Your task to perform on an android device: allow notifications from all sites in the chrome app Image 0: 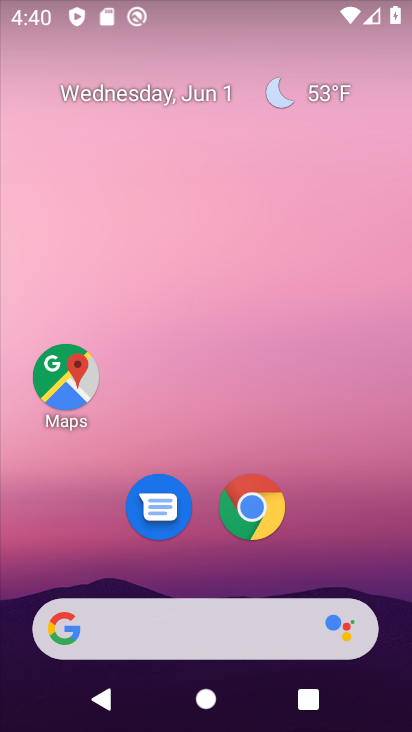
Step 0: click (346, 77)
Your task to perform on an android device: allow notifications from all sites in the chrome app Image 1: 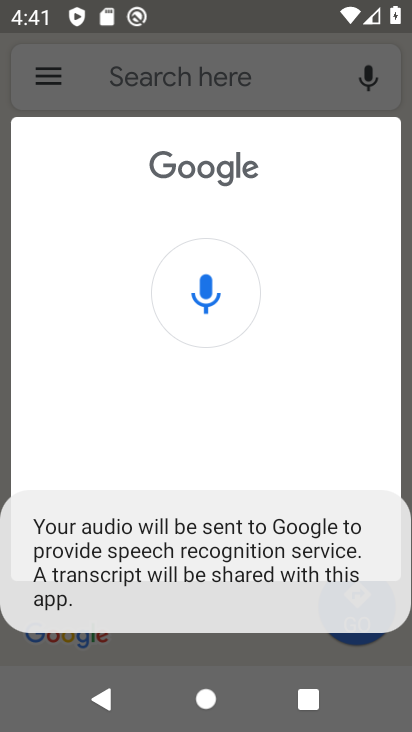
Step 1: press home button
Your task to perform on an android device: allow notifications from all sites in the chrome app Image 2: 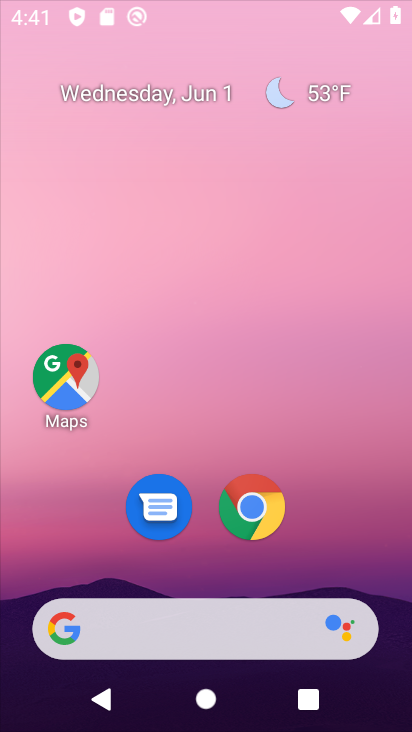
Step 2: press home button
Your task to perform on an android device: allow notifications from all sites in the chrome app Image 3: 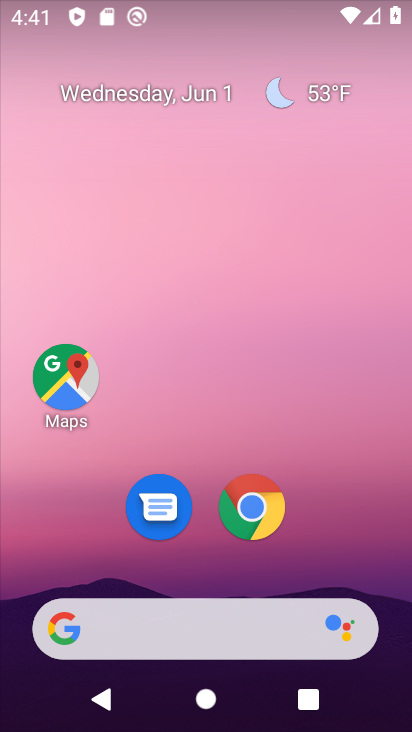
Step 3: drag from (306, 335) to (262, 18)
Your task to perform on an android device: allow notifications from all sites in the chrome app Image 4: 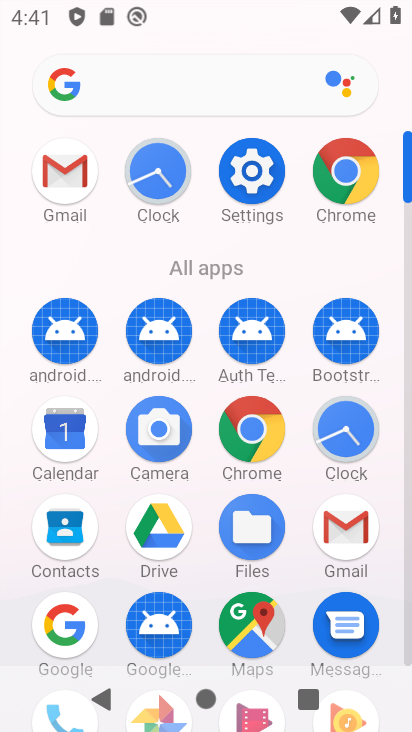
Step 4: click (360, 173)
Your task to perform on an android device: allow notifications from all sites in the chrome app Image 5: 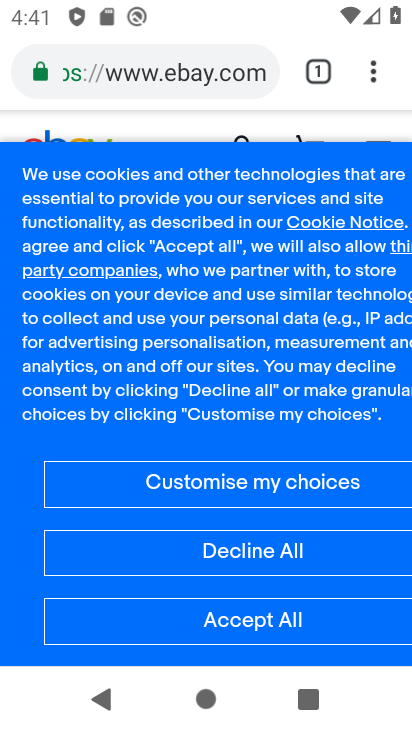
Step 5: drag from (378, 83) to (189, 501)
Your task to perform on an android device: allow notifications from all sites in the chrome app Image 6: 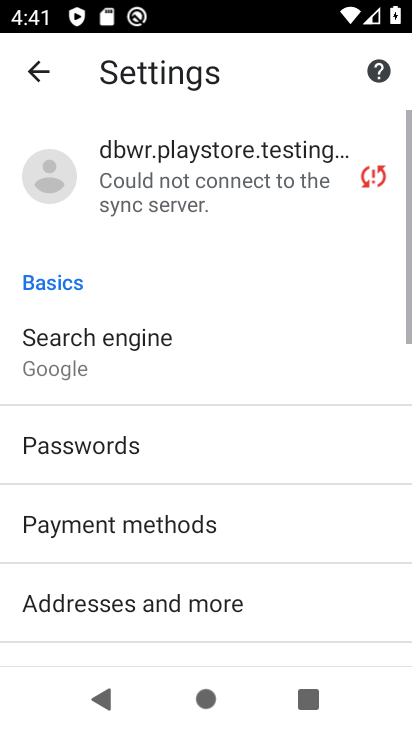
Step 6: drag from (228, 556) to (266, 143)
Your task to perform on an android device: allow notifications from all sites in the chrome app Image 7: 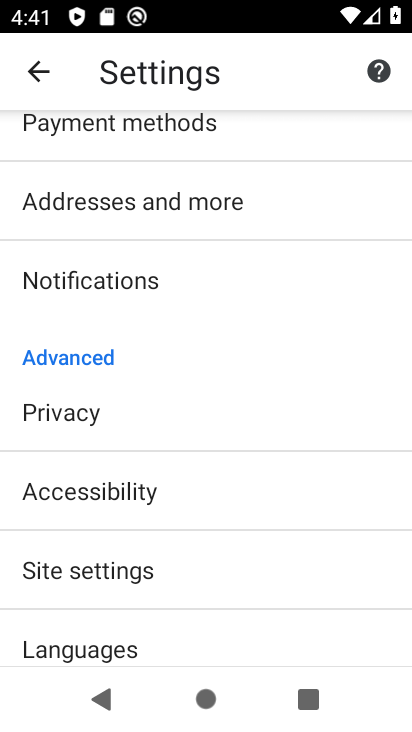
Step 7: drag from (197, 605) to (172, 247)
Your task to perform on an android device: allow notifications from all sites in the chrome app Image 8: 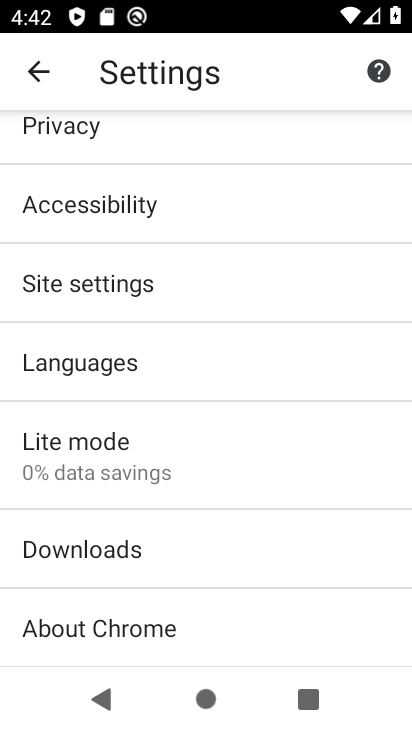
Step 8: drag from (174, 232) to (212, 566)
Your task to perform on an android device: allow notifications from all sites in the chrome app Image 9: 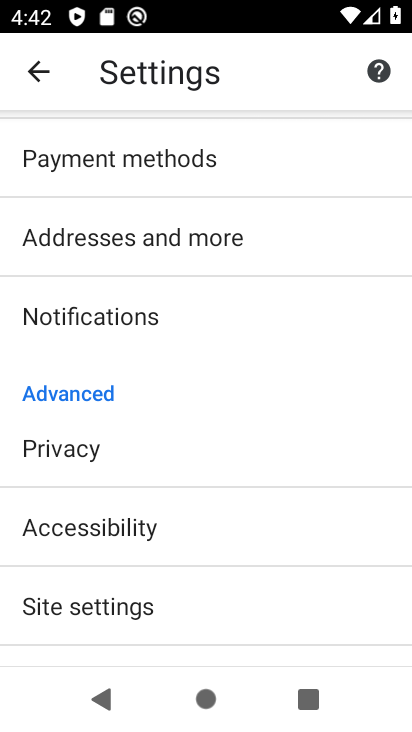
Step 9: drag from (160, 540) to (154, 396)
Your task to perform on an android device: allow notifications from all sites in the chrome app Image 10: 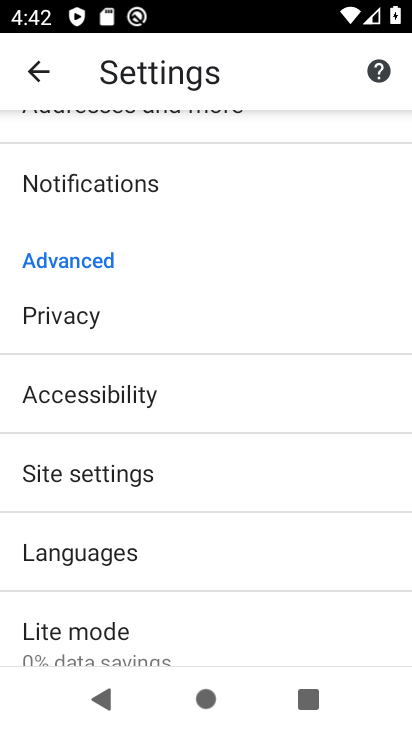
Step 10: click (68, 475)
Your task to perform on an android device: allow notifications from all sites in the chrome app Image 11: 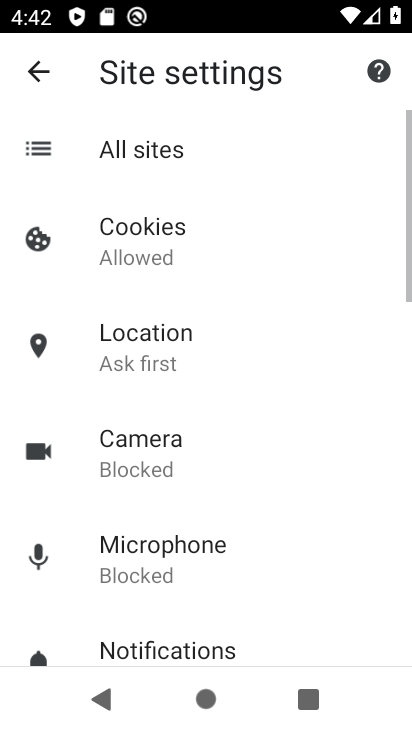
Step 11: drag from (248, 596) to (257, 224)
Your task to perform on an android device: allow notifications from all sites in the chrome app Image 12: 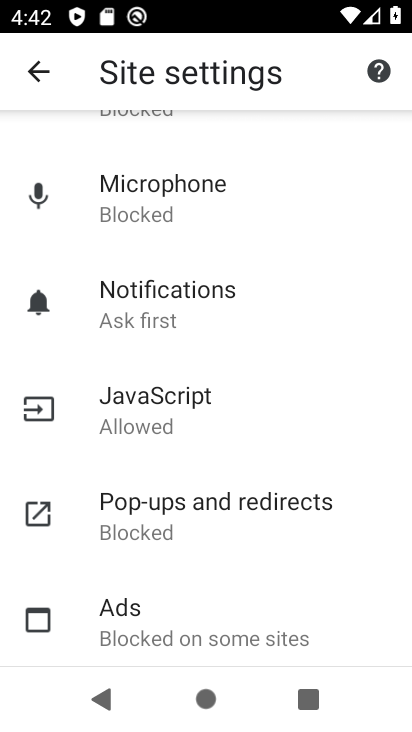
Step 12: click (187, 284)
Your task to perform on an android device: allow notifications from all sites in the chrome app Image 13: 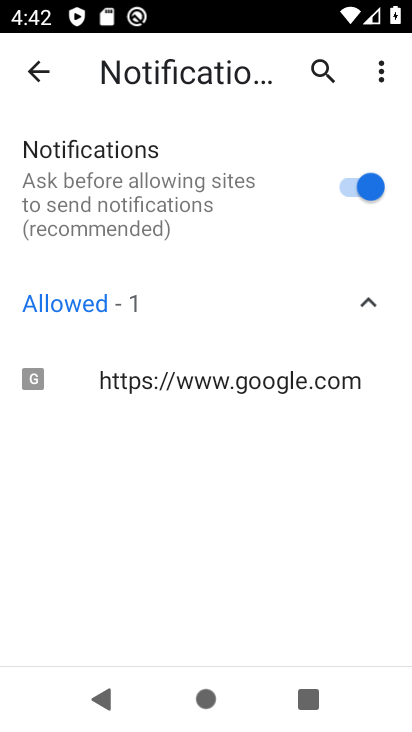
Step 13: task complete